Your task to perform on an android device: turn off translation in the chrome app Image 0: 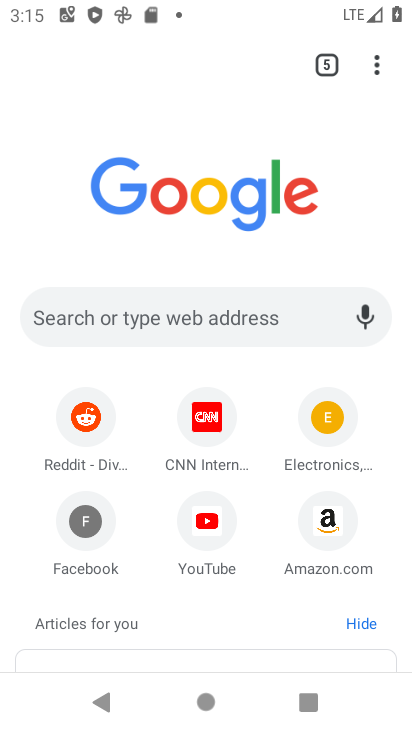
Step 0: drag from (369, 81) to (161, 543)
Your task to perform on an android device: turn off translation in the chrome app Image 1: 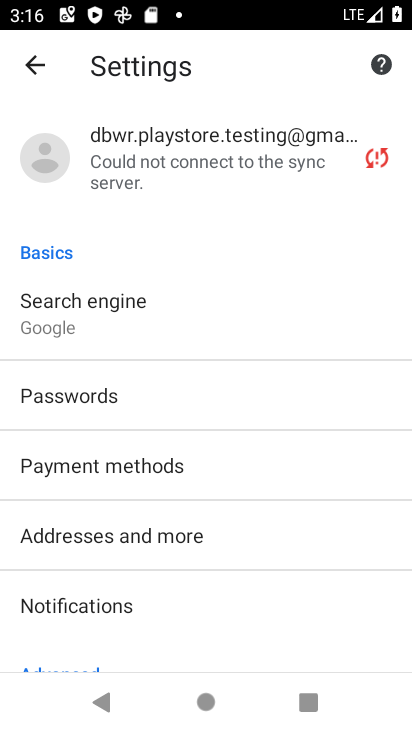
Step 1: drag from (121, 593) to (120, 261)
Your task to perform on an android device: turn off translation in the chrome app Image 2: 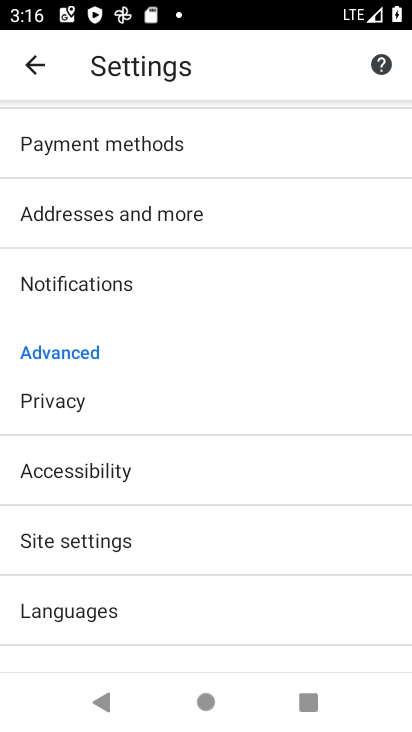
Step 2: drag from (184, 619) to (249, 244)
Your task to perform on an android device: turn off translation in the chrome app Image 3: 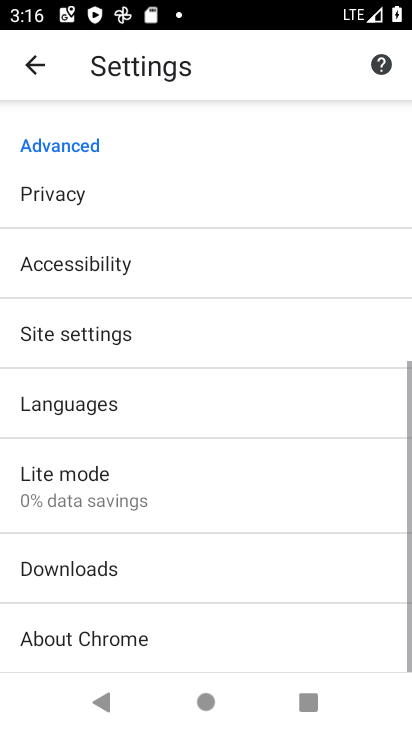
Step 3: click (89, 403)
Your task to perform on an android device: turn off translation in the chrome app Image 4: 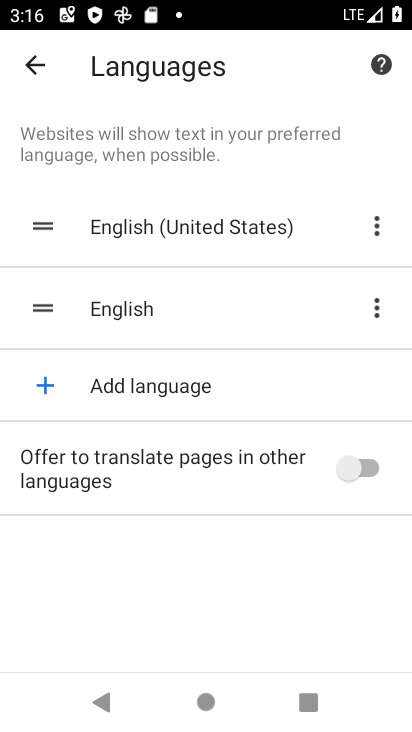
Step 4: task complete